Your task to perform on an android device: Go to Maps Image 0: 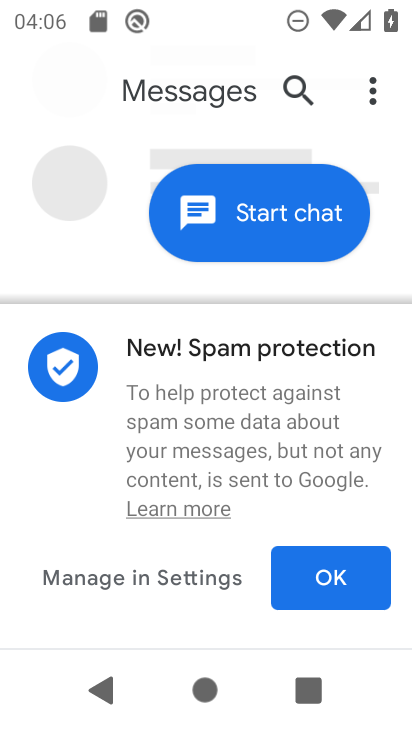
Step 0: press home button
Your task to perform on an android device: Go to Maps Image 1: 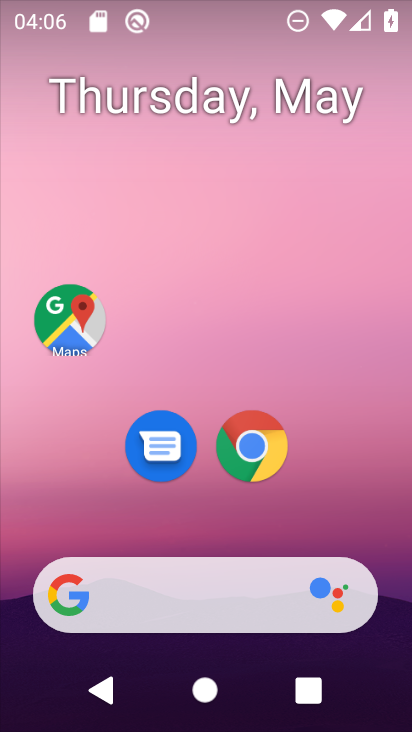
Step 1: click (70, 332)
Your task to perform on an android device: Go to Maps Image 2: 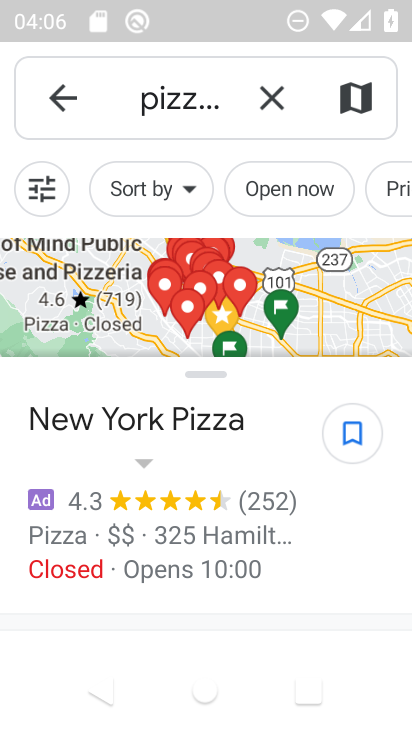
Step 2: task complete